Your task to perform on an android device: Open Youtube and go to the subscriptions tab Image 0: 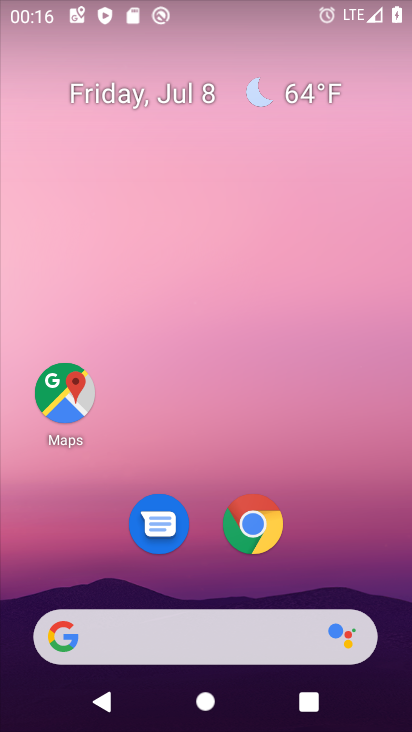
Step 0: drag from (206, 475) to (211, 24)
Your task to perform on an android device: Open Youtube and go to the subscriptions tab Image 1: 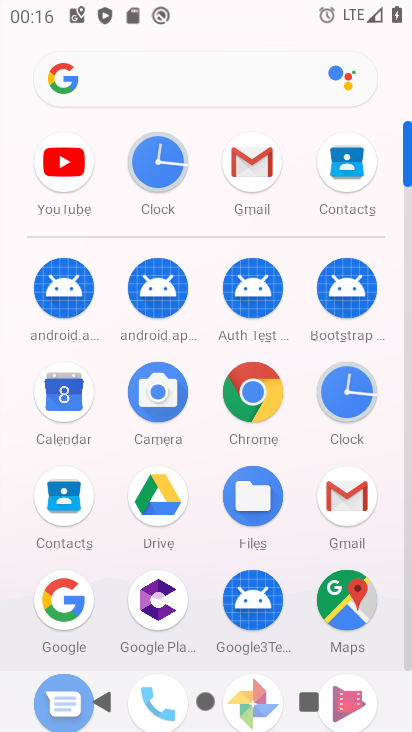
Step 1: click (76, 170)
Your task to perform on an android device: Open Youtube and go to the subscriptions tab Image 2: 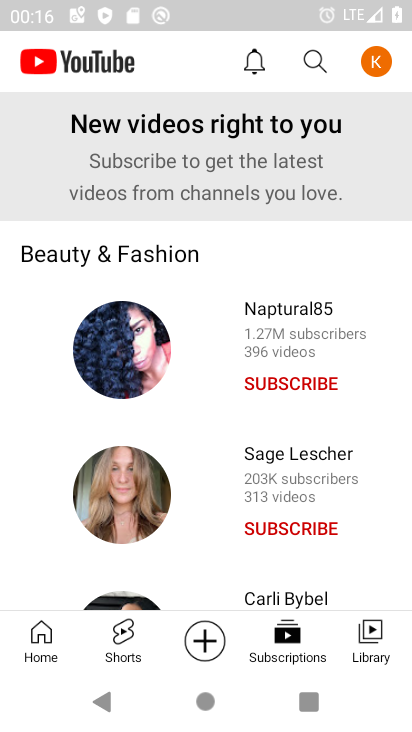
Step 2: click (308, 641)
Your task to perform on an android device: Open Youtube and go to the subscriptions tab Image 3: 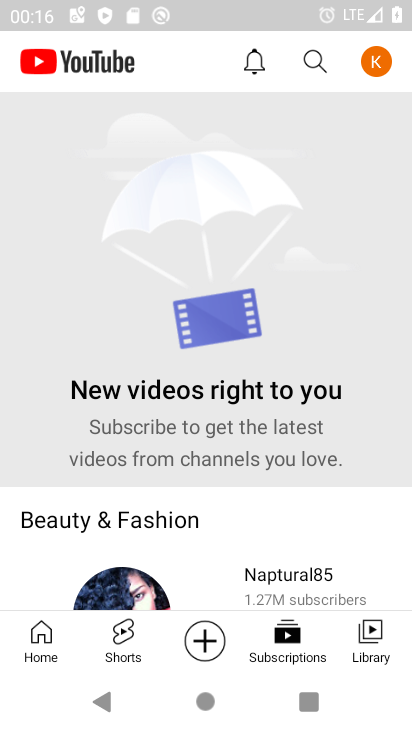
Step 3: click (290, 646)
Your task to perform on an android device: Open Youtube and go to the subscriptions tab Image 4: 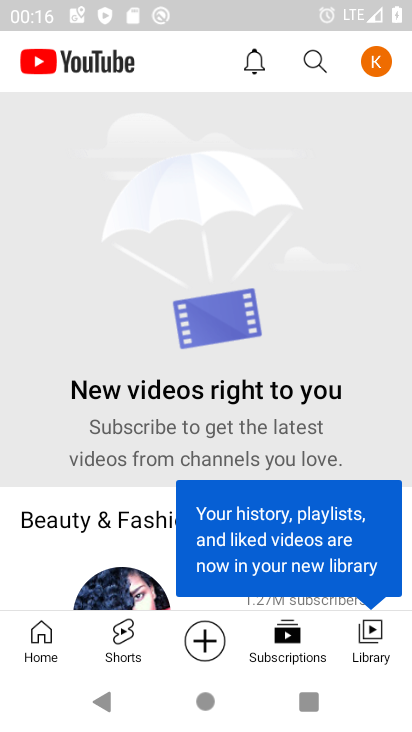
Step 4: click (295, 637)
Your task to perform on an android device: Open Youtube and go to the subscriptions tab Image 5: 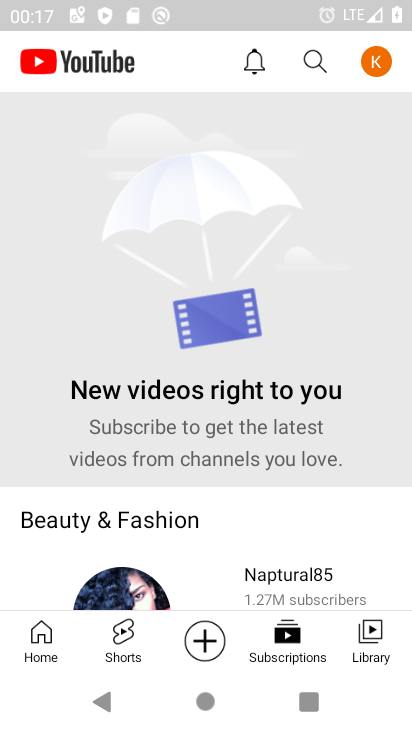
Step 5: task complete